Your task to perform on an android device: set the stopwatch Image 0: 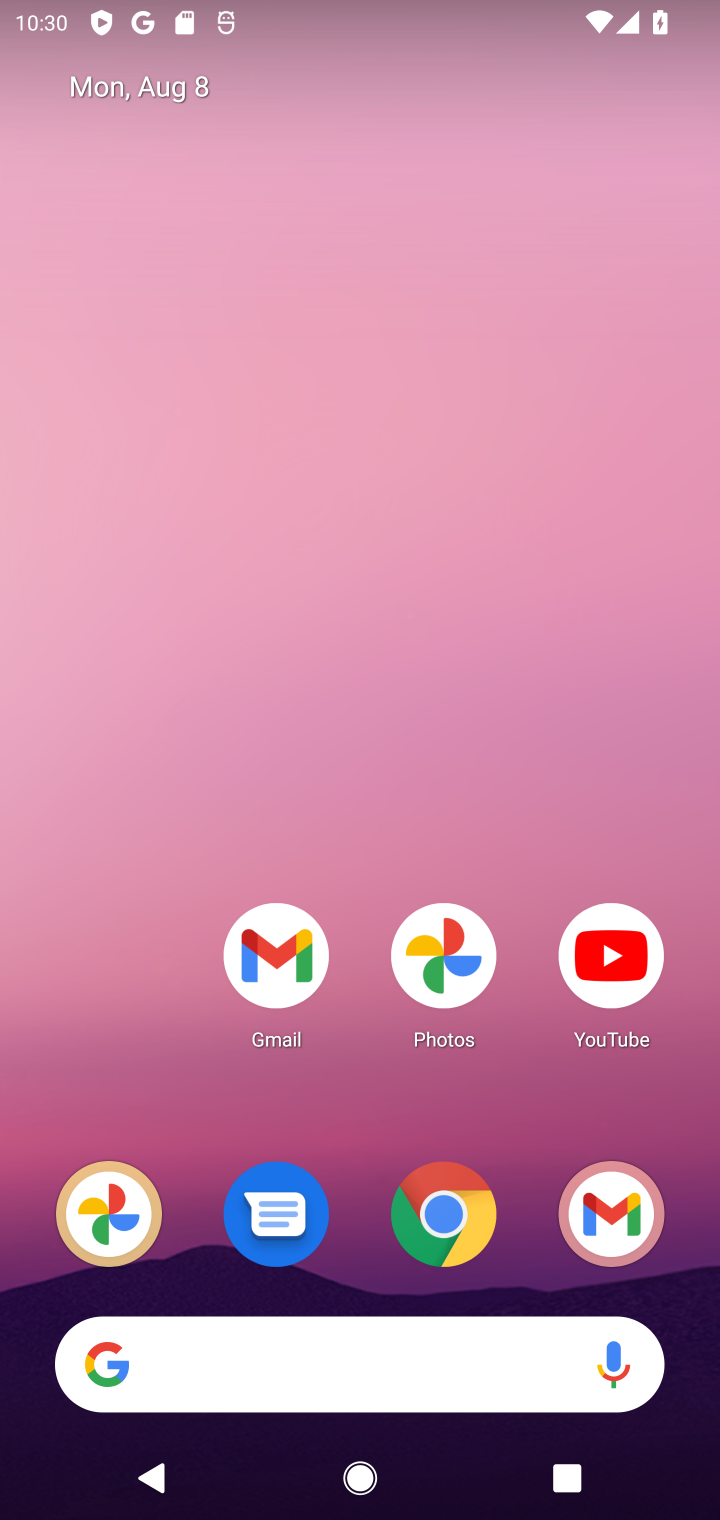
Step 0: drag from (40, 1427) to (353, 132)
Your task to perform on an android device: set the stopwatch Image 1: 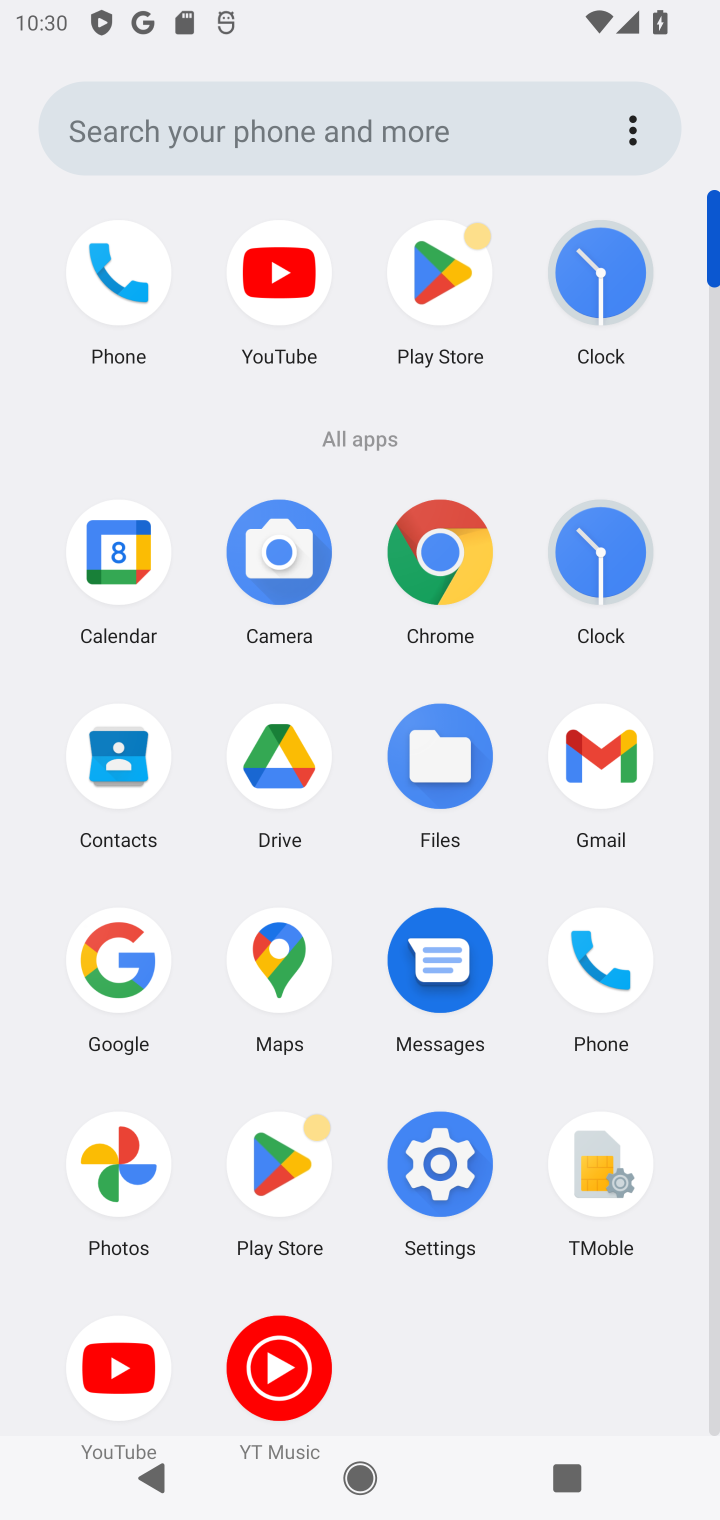
Step 1: click (447, 1158)
Your task to perform on an android device: set the stopwatch Image 2: 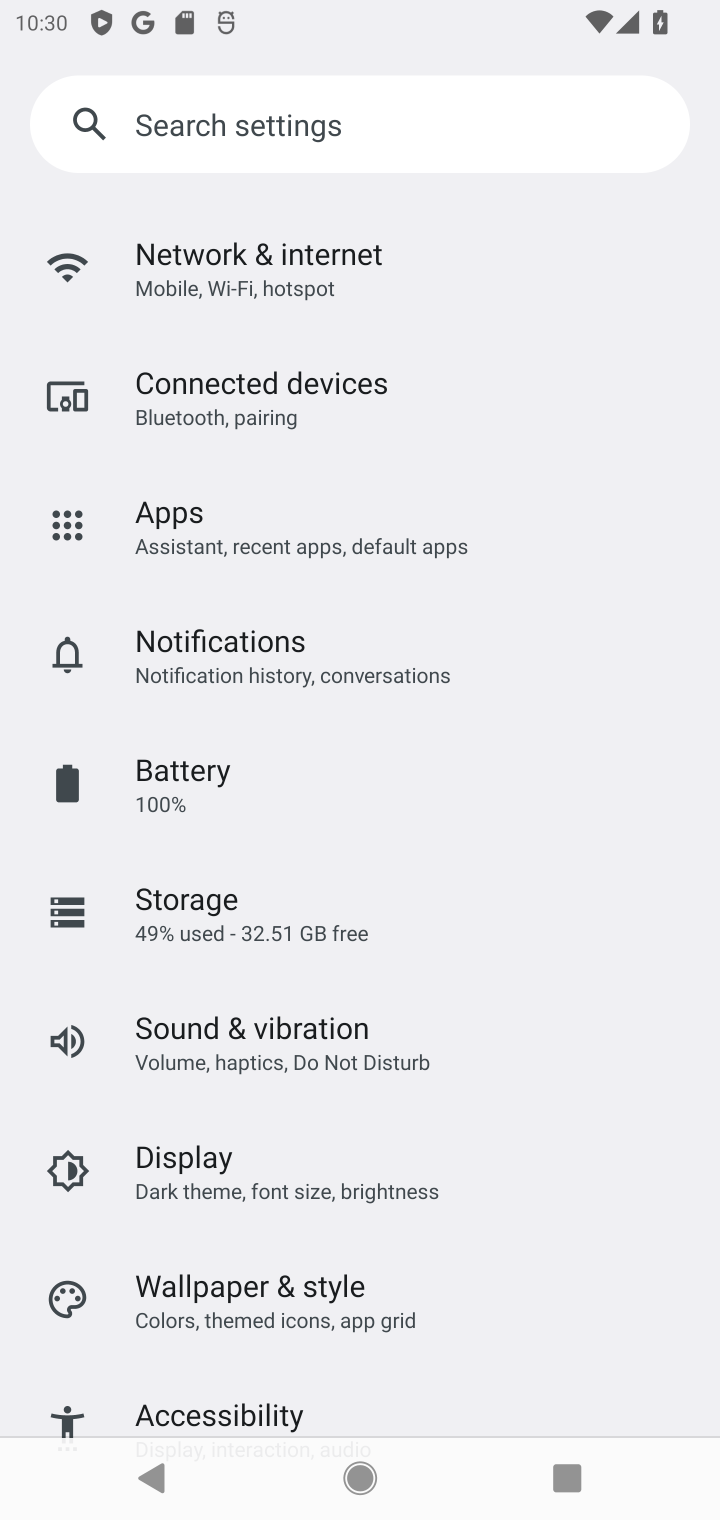
Step 2: press home button
Your task to perform on an android device: set the stopwatch Image 3: 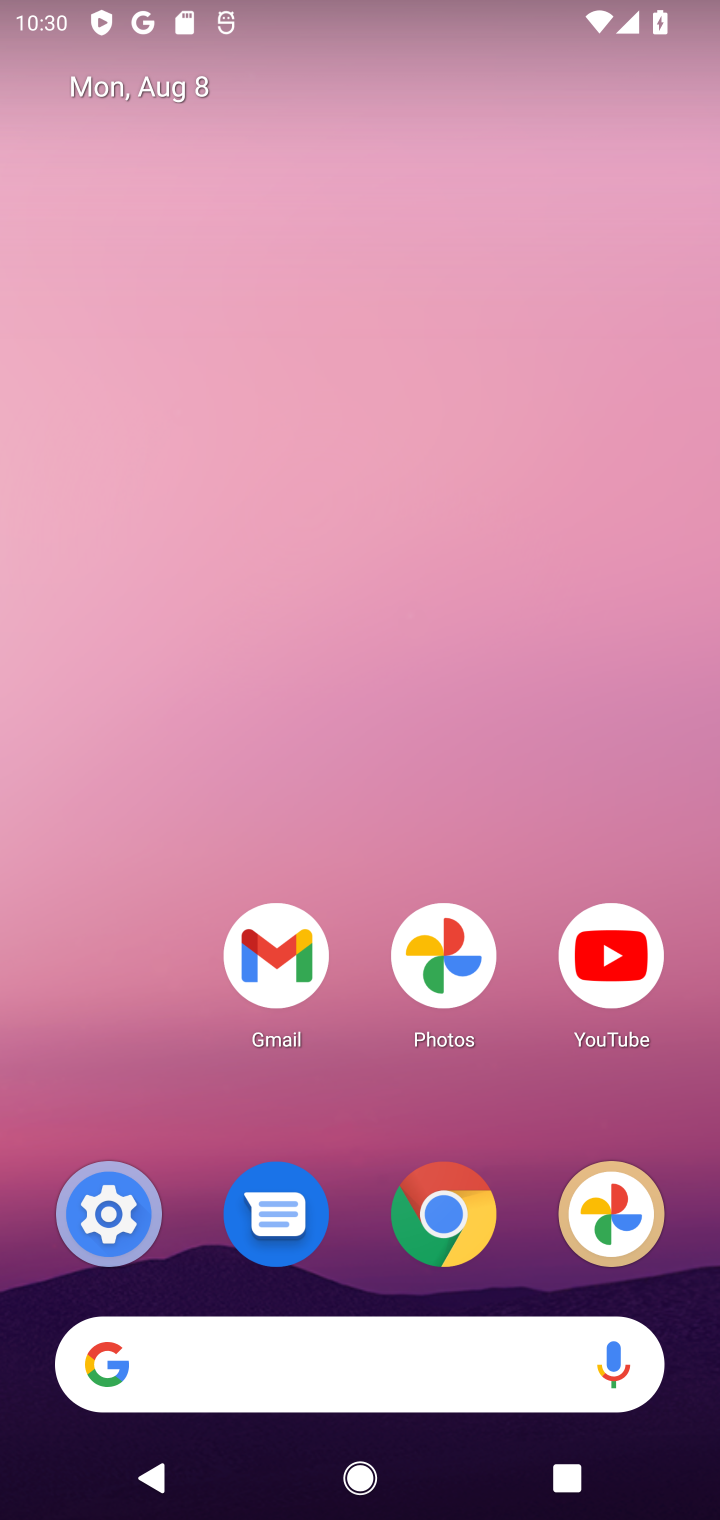
Step 3: drag from (63, 1420) to (581, 74)
Your task to perform on an android device: set the stopwatch Image 4: 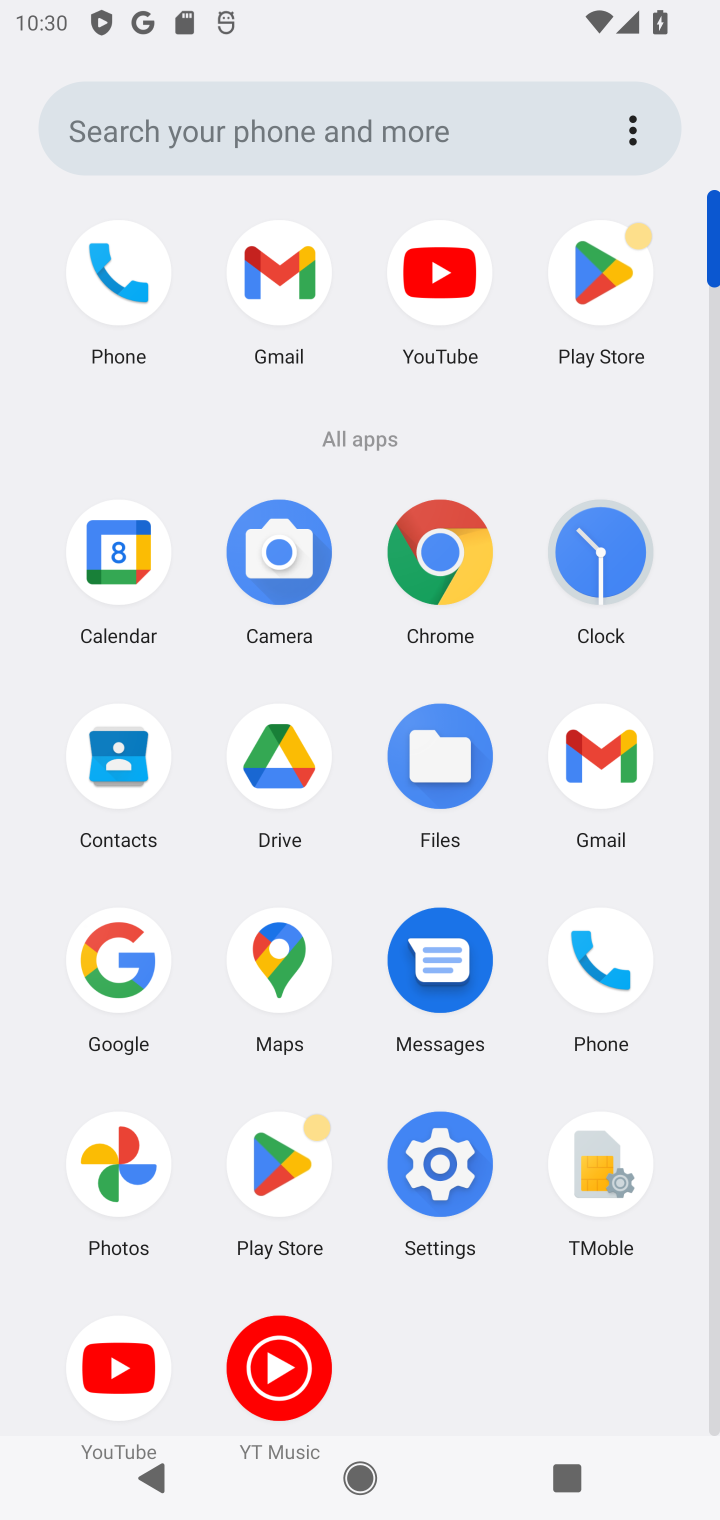
Step 4: click (605, 569)
Your task to perform on an android device: set the stopwatch Image 5: 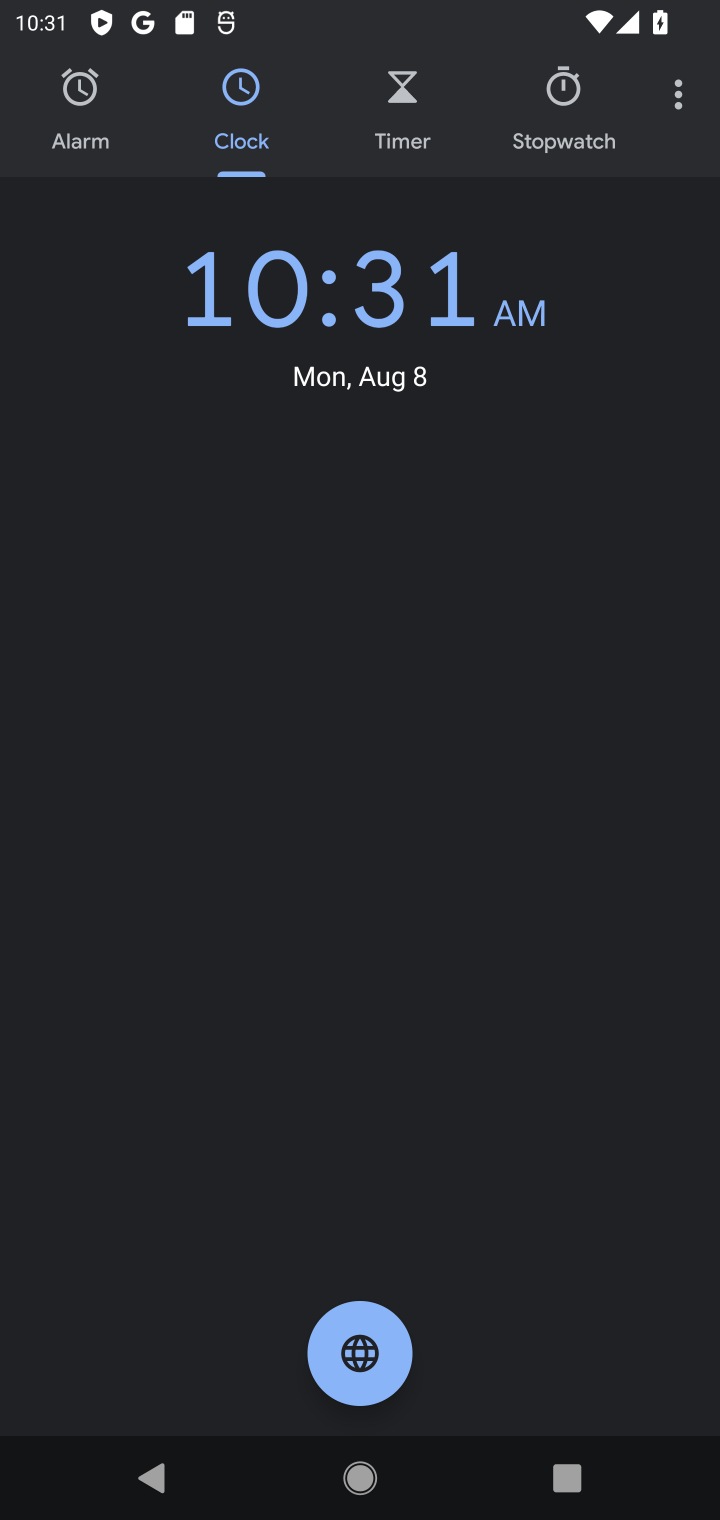
Step 5: click (593, 125)
Your task to perform on an android device: set the stopwatch Image 6: 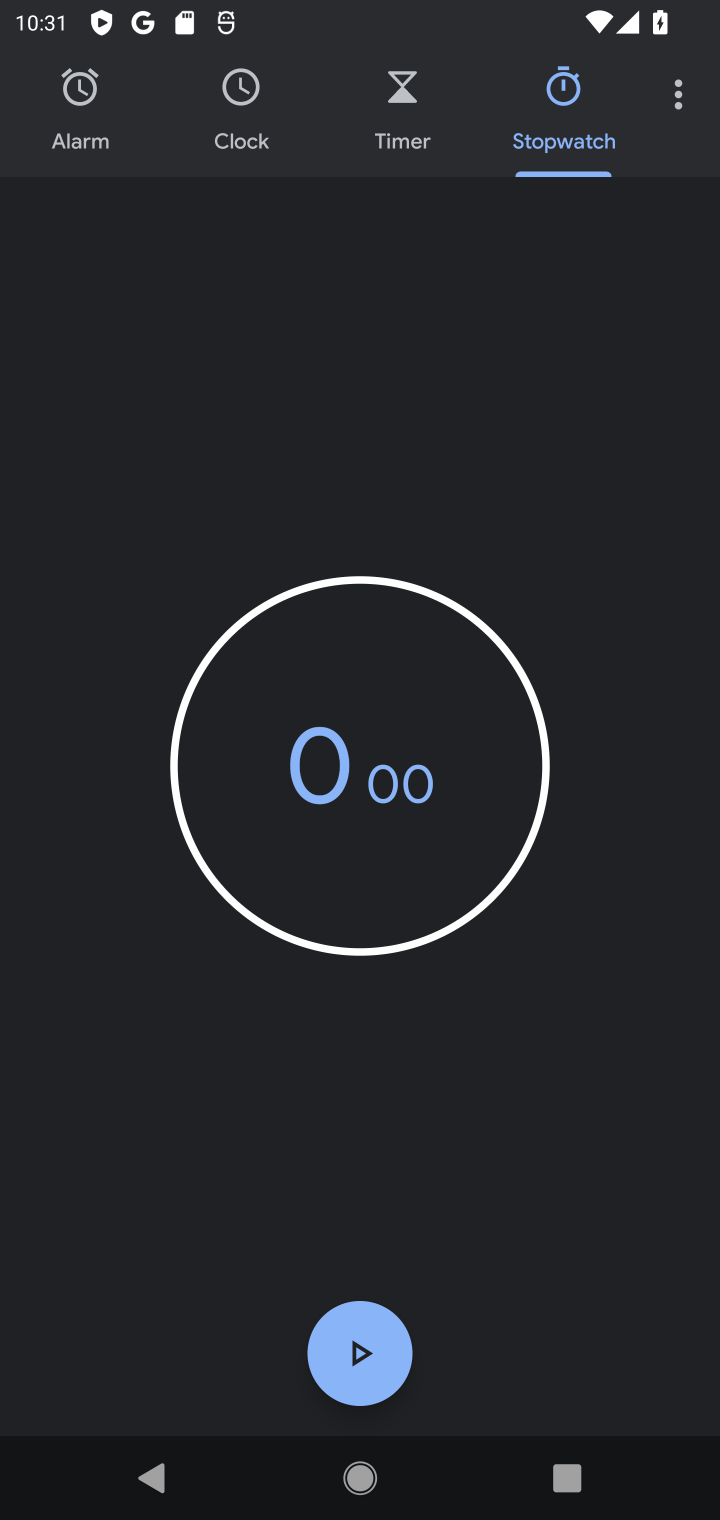
Step 6: click (462, 793)
Your task to perform on an android device: set the stopwatch Image 7: 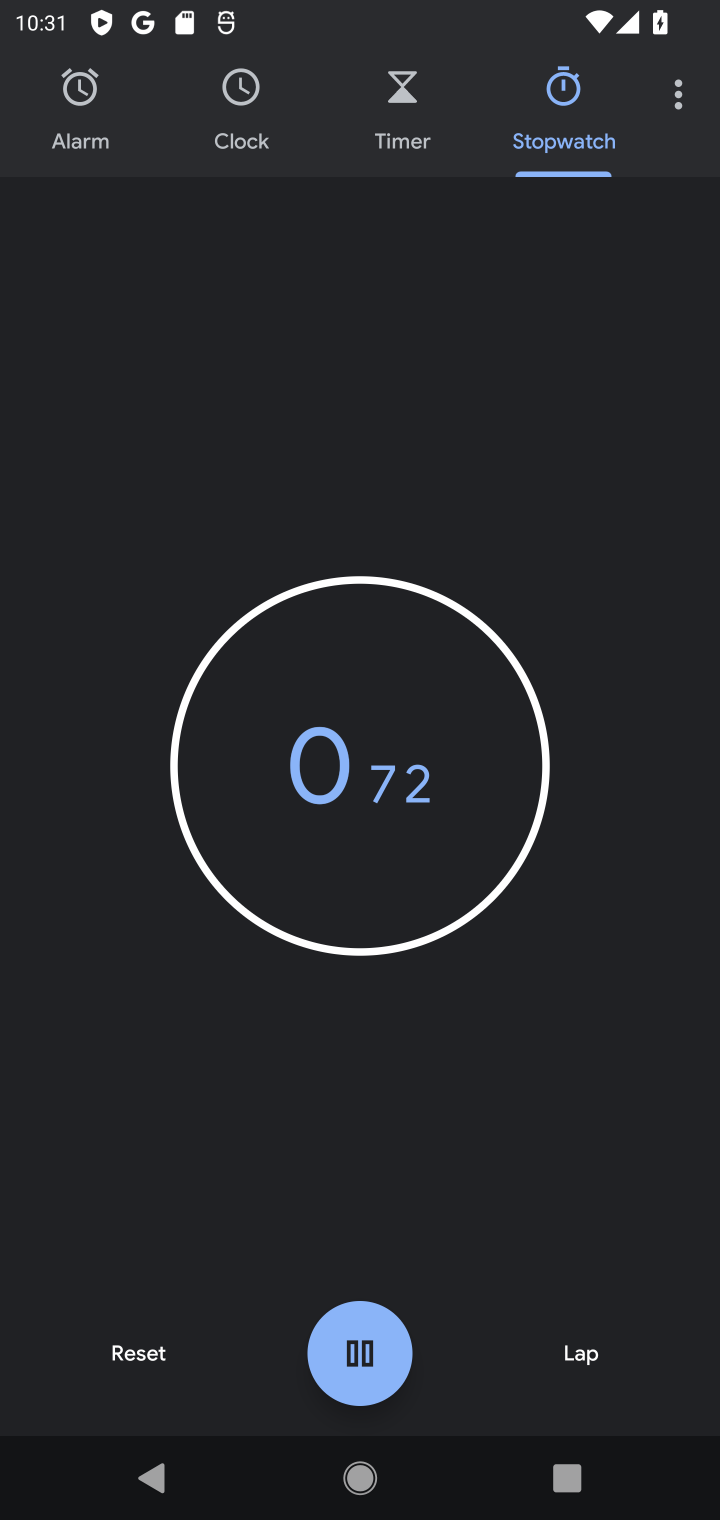
Step 7: click (462, 793)
Your task to perform on an android device: set the stopwatch Image 8: 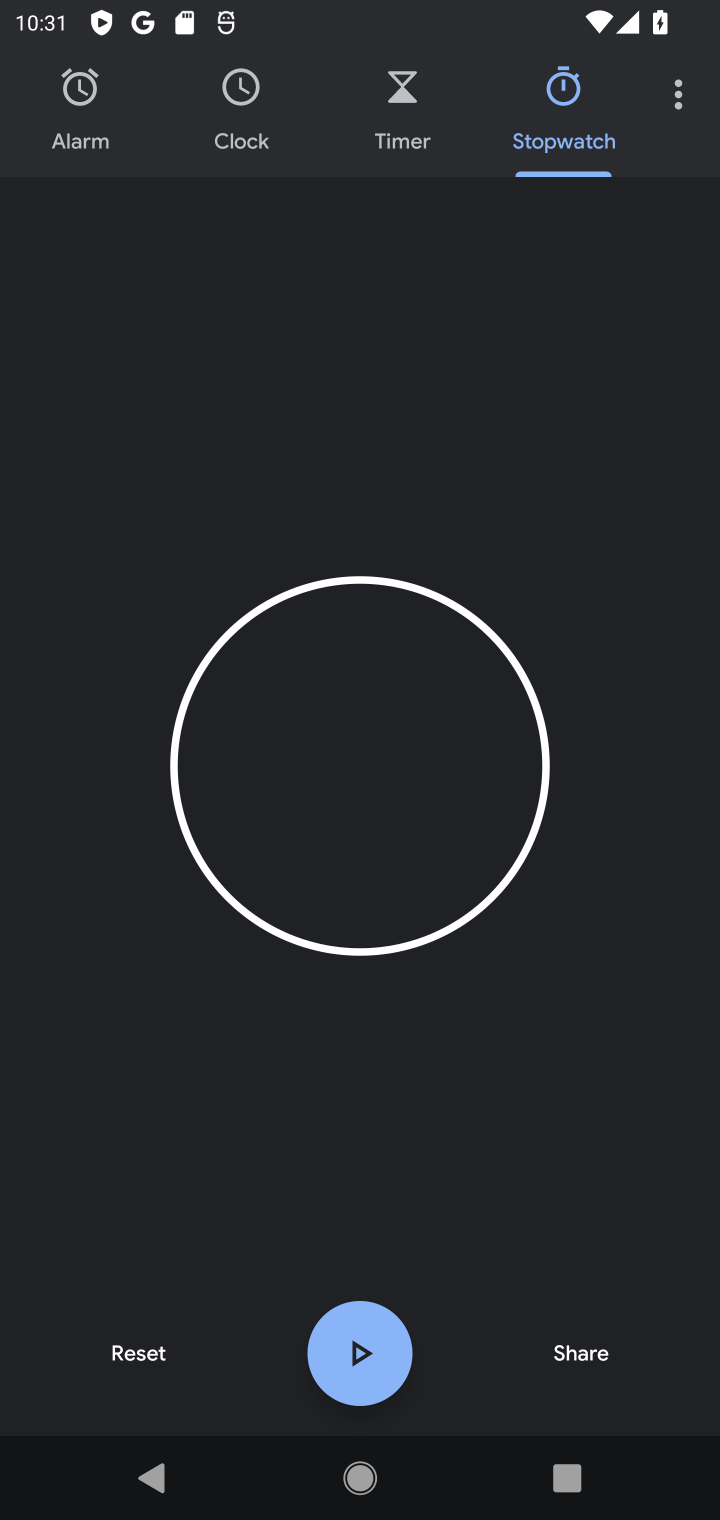
Step 8: task complete